Your task to perform on an android device: toggle notifications settings in the gmail app Image 0: 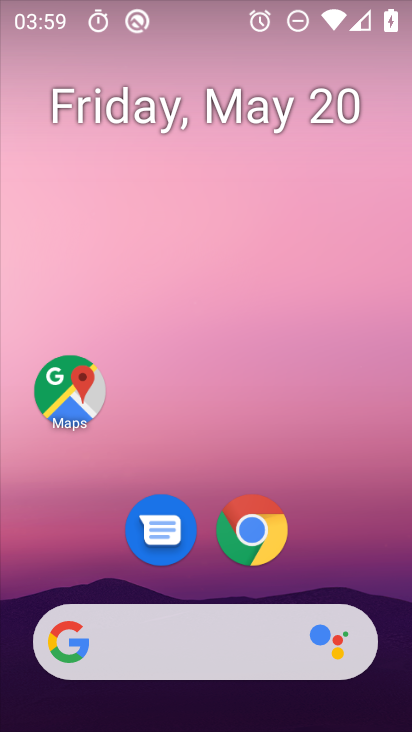
Step 0: drag from (385, 510) to (360, 329)
Your task to perform on an android device: toggle notifications settings in the gmail app Image 1: 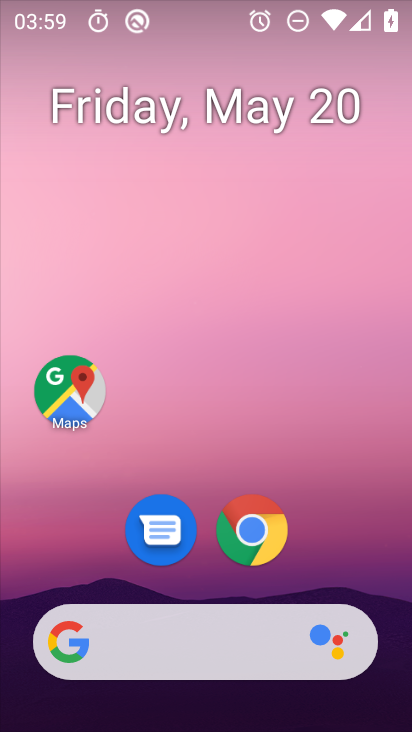
Step 1: drag from (401, 696) to (407, 247)
Your task to perform on an android device: toggle notifications settings in the gmail app Image 2: 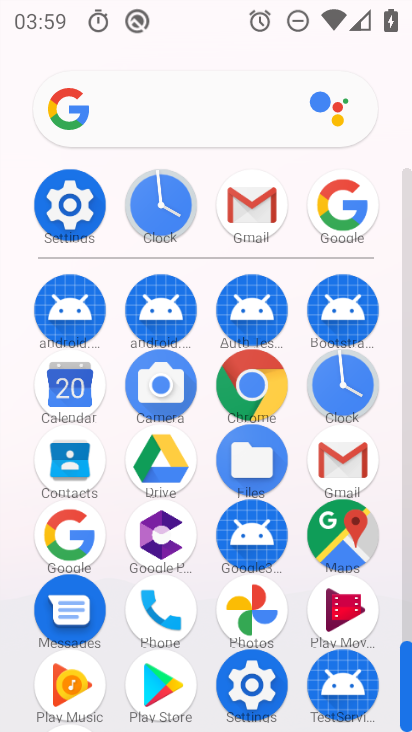
Step 2: click (336, 474)
Your task to perform on an android device: toggle notifications settings in the gmail app Image 3: 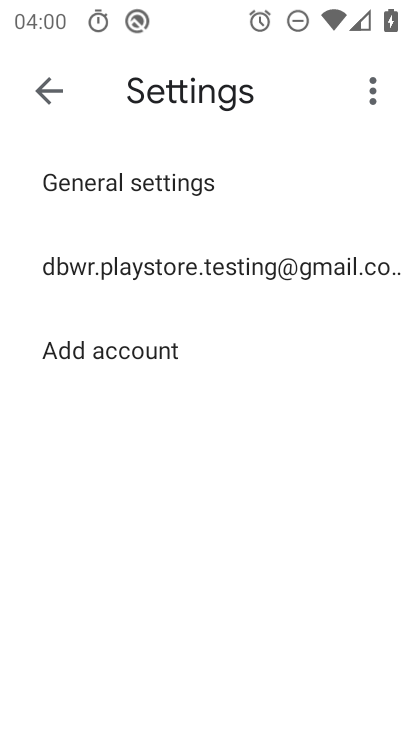
Step 3: click (78, 191)
Your task to perform on an android device: toggle notifications settings in the gmail app Image 4: 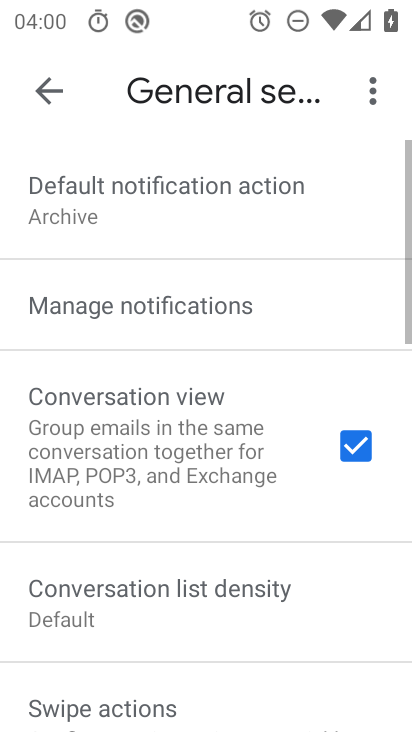
Step 4: click (95, 311)
Your task to perform on an android device: toggle notifications settings in the gmail app Image 5: 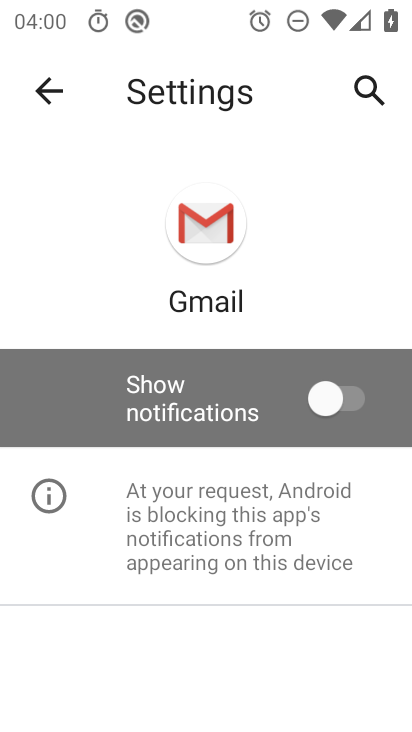
Step 5: click (346, 396)
Your task to perform on an android device: toggle notifications settings in the gmail app Image 6: 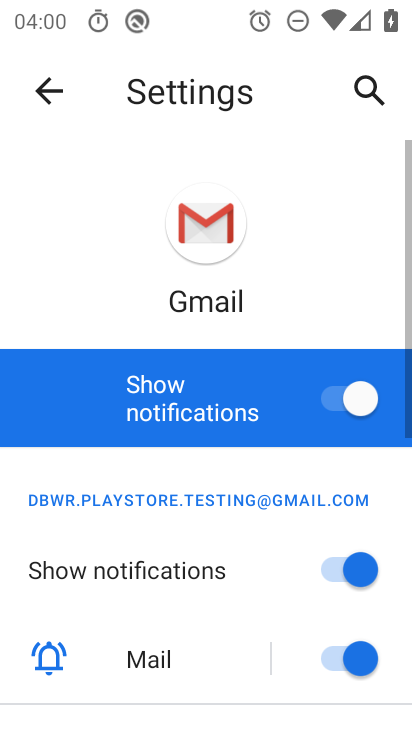
Step 6: task complete